Your task to perform on an android device: Open calendar and show me the third week of next month Image 0: 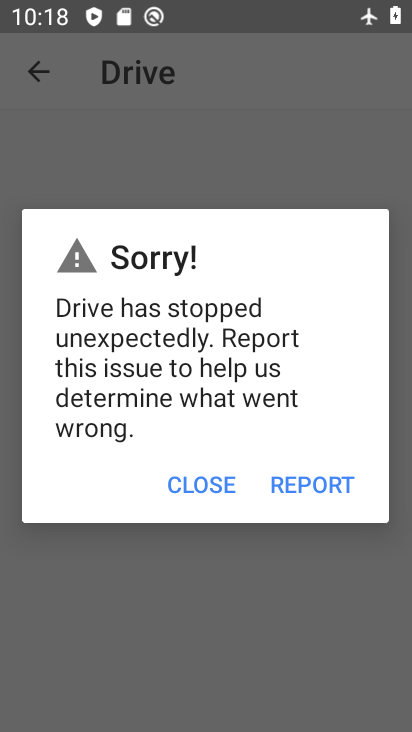
Step 0: press home button
Your task to perform on an android device: Open calendar and show me the third week of next month Image 1: 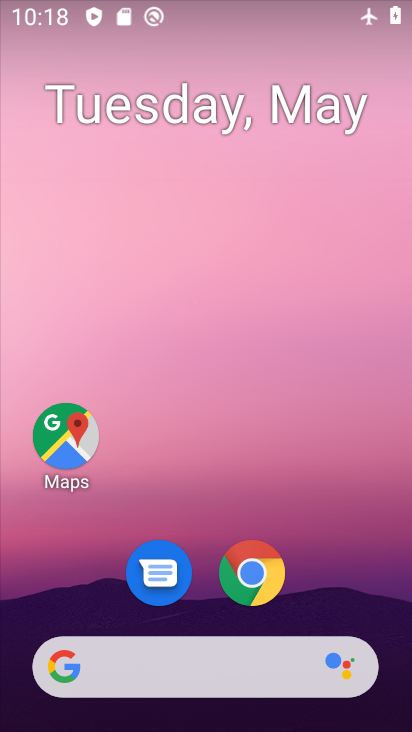
Step 1: drag from (318, 596) to (289, 49)
Your task to perform on an android device: Open calendar and show me the third week of next month Image 2: 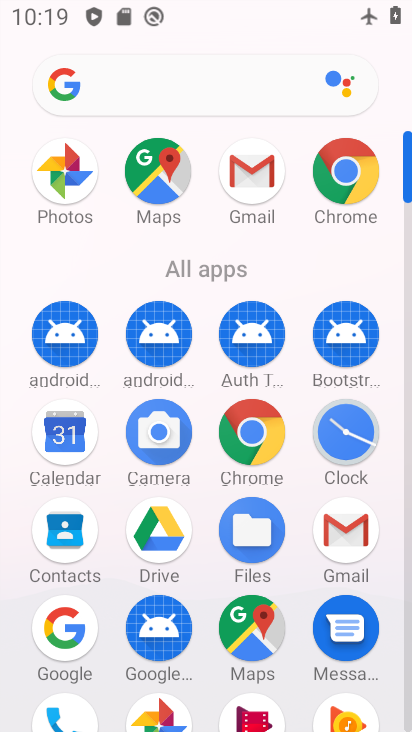
Step 2: click (68, 435)
Your task to perform on an android device: Open calendar and show me the third week of next month Image 3: 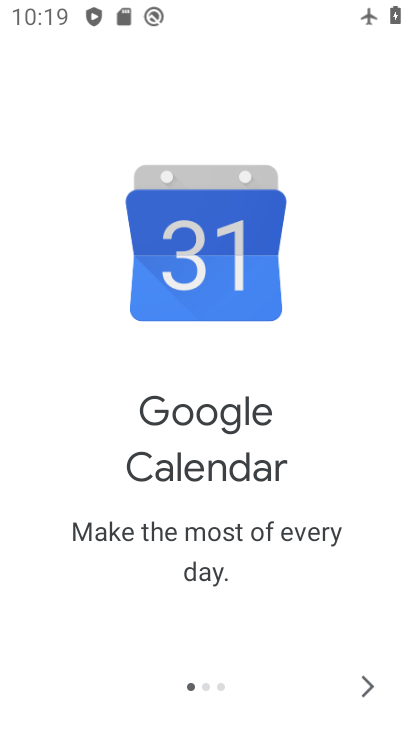
Step 3: click (363, 690)
Your task to perform on an android device: Open calendar and show me the third week of next month Image 4: 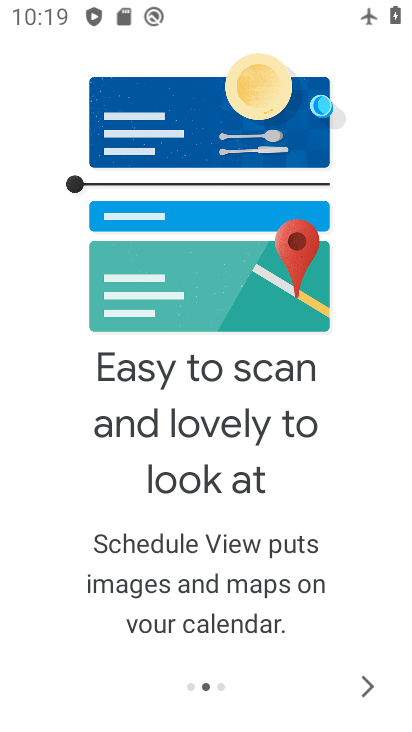
Step 4: click (363, 690)
Your task to perform on an android device: Open calendar and show me the third week of next month Image 5: 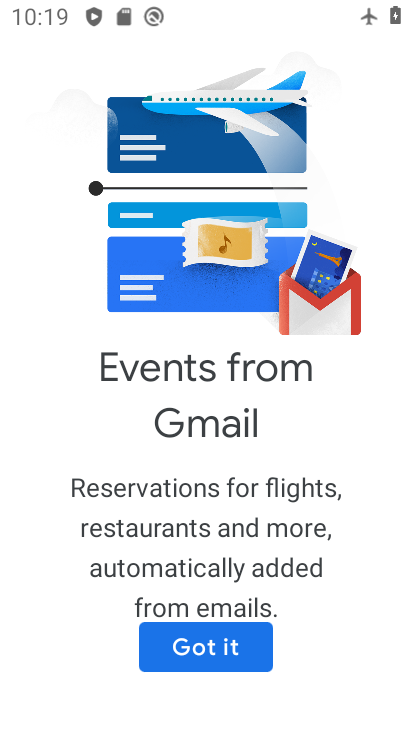
Step 5: click (363, 690)
Your task to perform on an android device: Open calendar and show me the third week of next month Image 6: 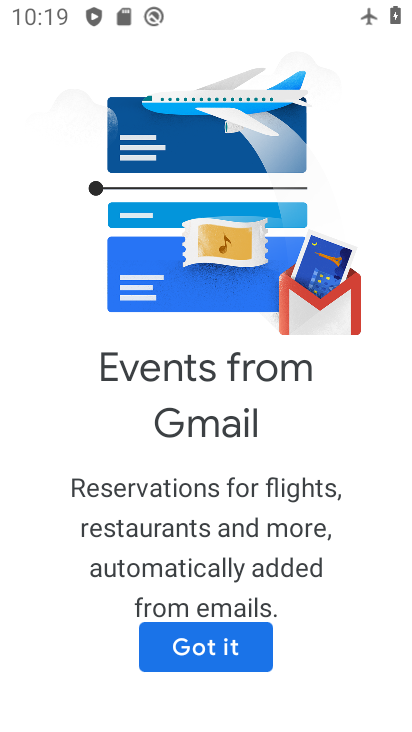
Step 6: click (242, 642)
Your task to perform on an android device: Open calendar and show me the third week of next month Image 7: 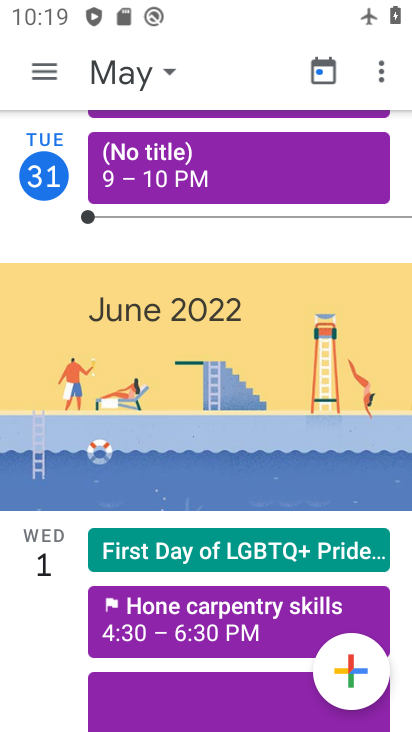
Step 7: click (168, 68)
Your task to perform on an android device: Open calendar and show me the third week of next month Image 8: 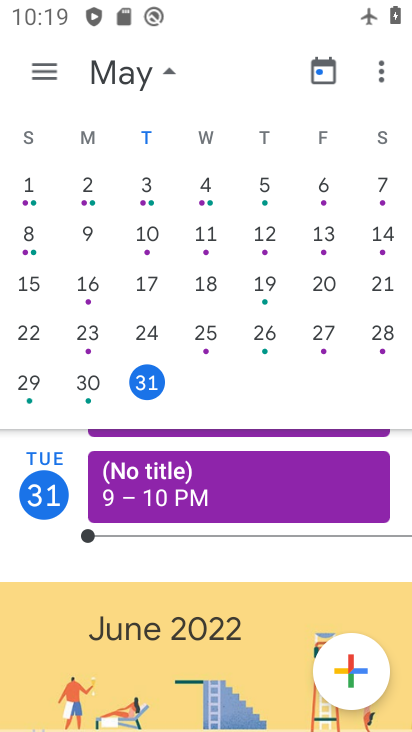
Step 8: drag from (341, 239) to (26, 209)
Your task to perform on an android device: Open calendar and show me the third week of next month Image 9: 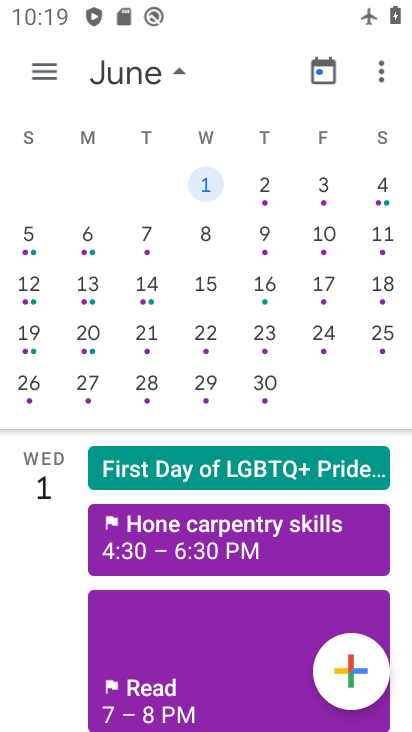
Step 9: drag from (357, 244) to (73, 223)
Your task to perform on an android device: Open calendar and show me the third week of next month Image 10: 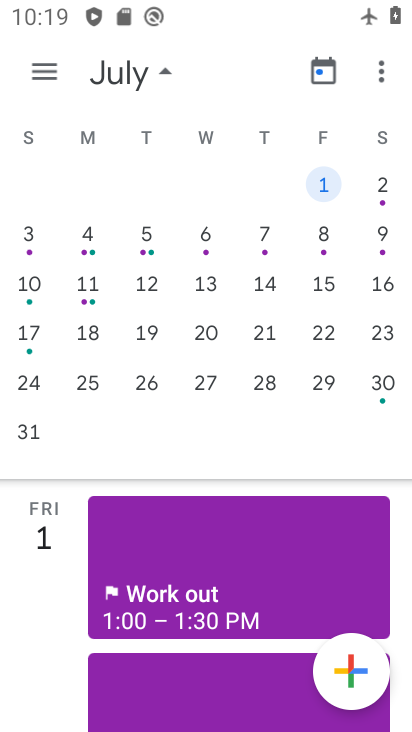
Step 10: click (154, 329)
Your task to perform on an android device: Open calendar and show me the third week of next month Image 11: 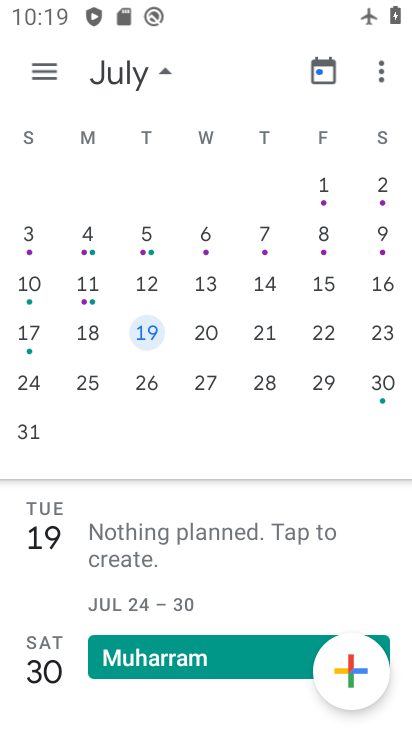
Step 11: task complete